Your task to perform on an android device: Search for logitech g903 on newegg, select the first entry, and add it to the cart. Image 0: 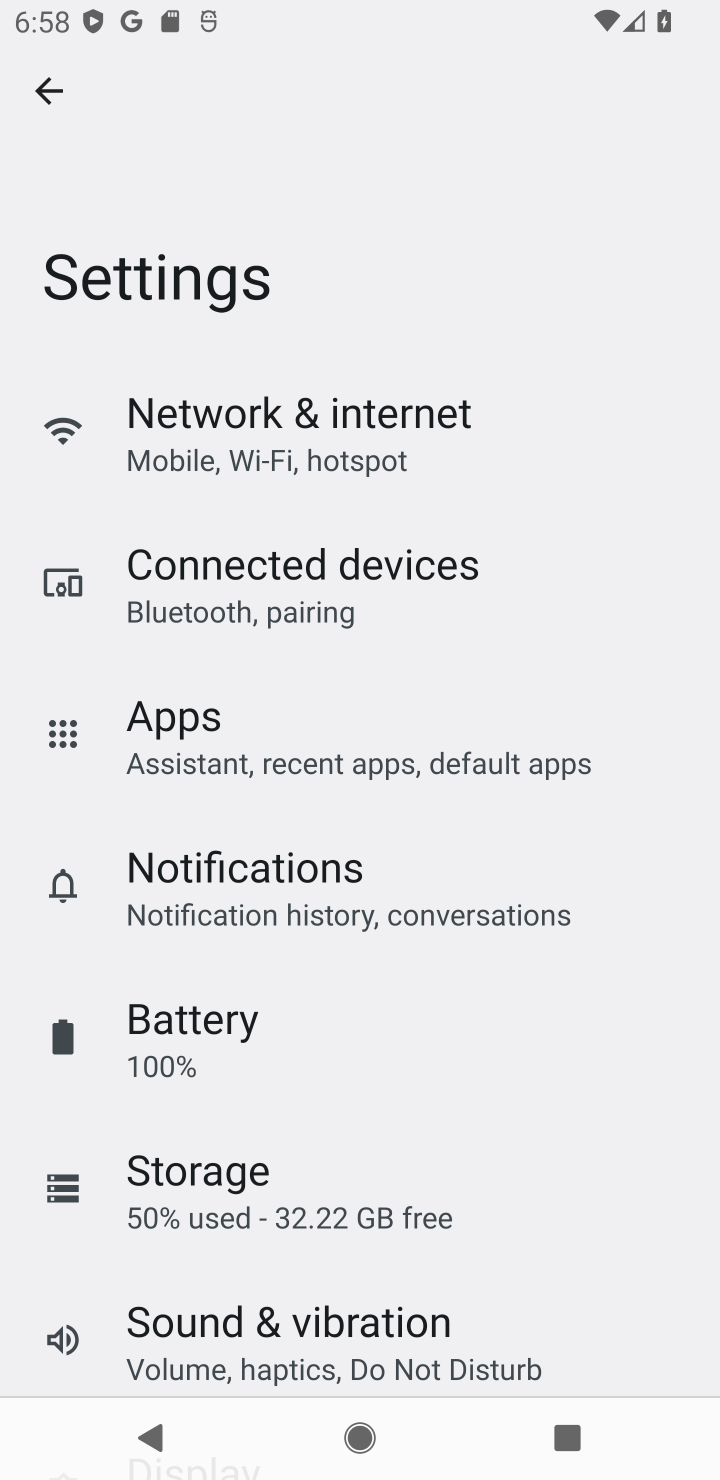
Step 0: press home button
Your task to perform on an android device: Search for logitech g903 on newegg, select the first entry, and add it to the cart. Image 1: 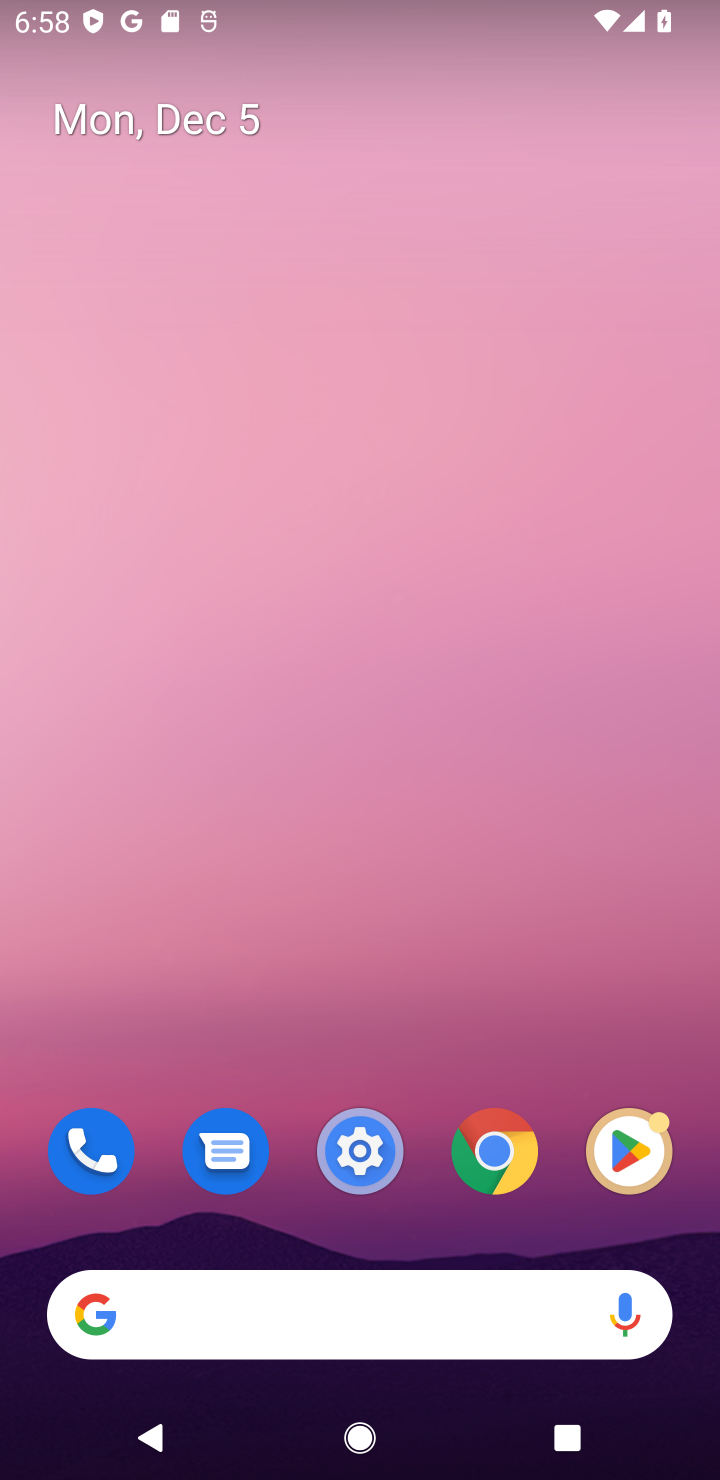
Step 1: click (444, 1308)
Your task to perform on an android device: Search for logitech g903 on newegg, select the first entry, and add it to the cart. Image 2: 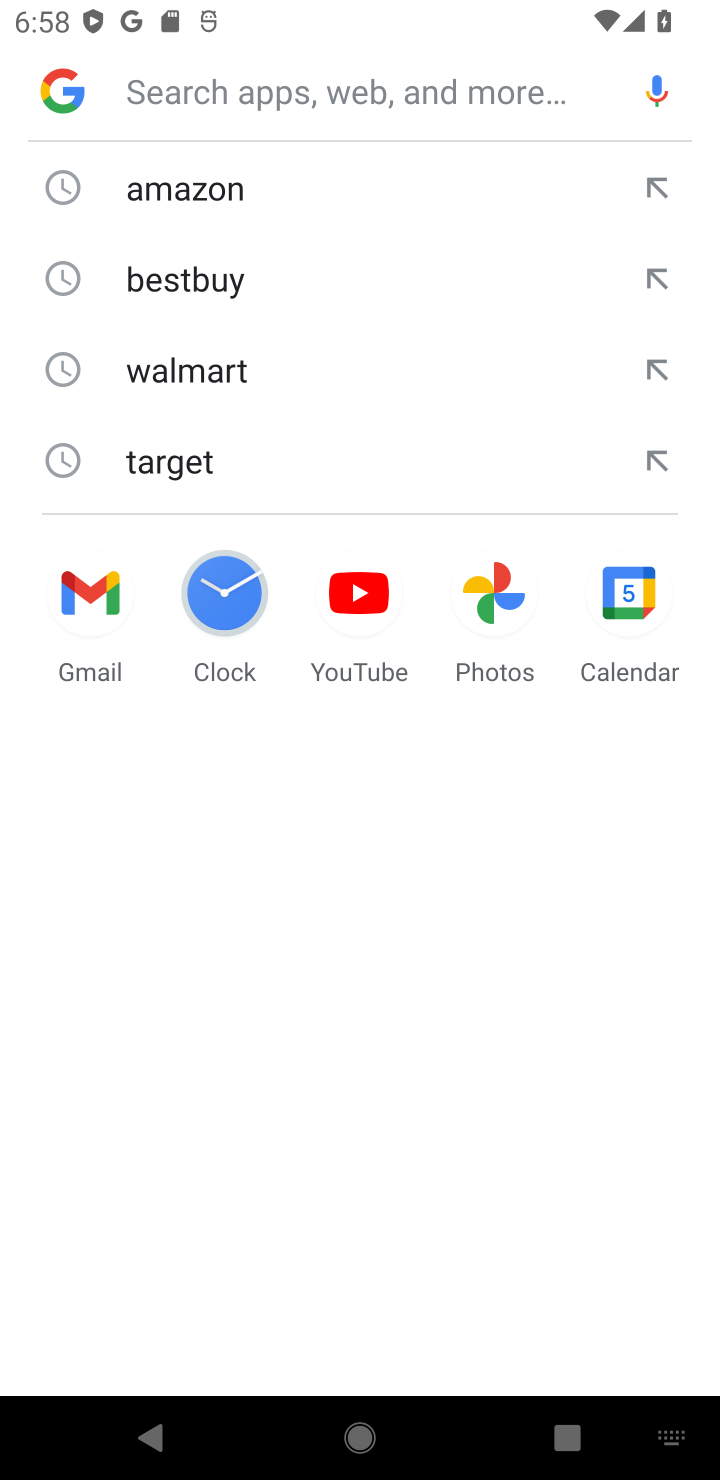
Step 2: type "newegg"
Your task to perform on an android device: Search for logitech g903 on newegg, select the first entry, and add it to the cart. Image 3: 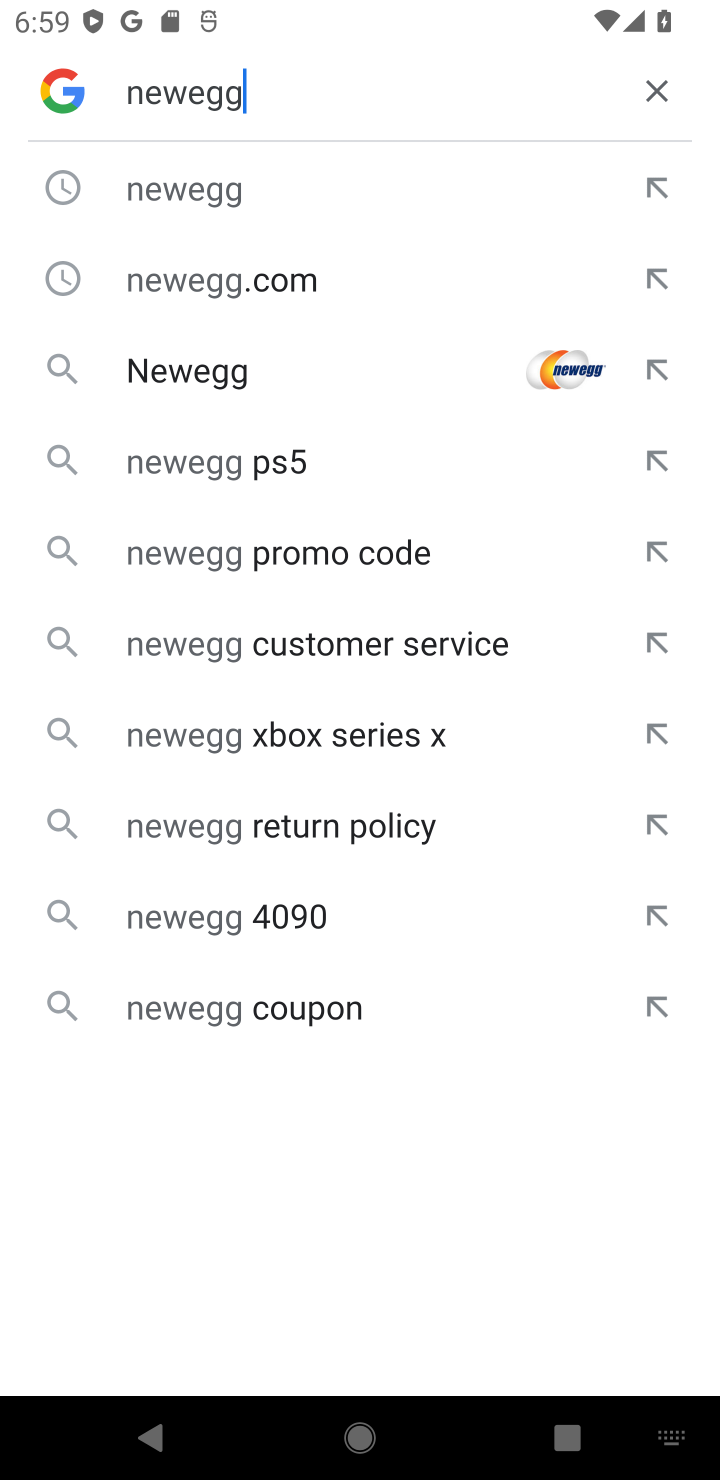
Step 3: click (307, 236)
Your task to perform on an android device: Search for logitech g903 on newegg, select the first entry, and add it to the cart. Image 4: 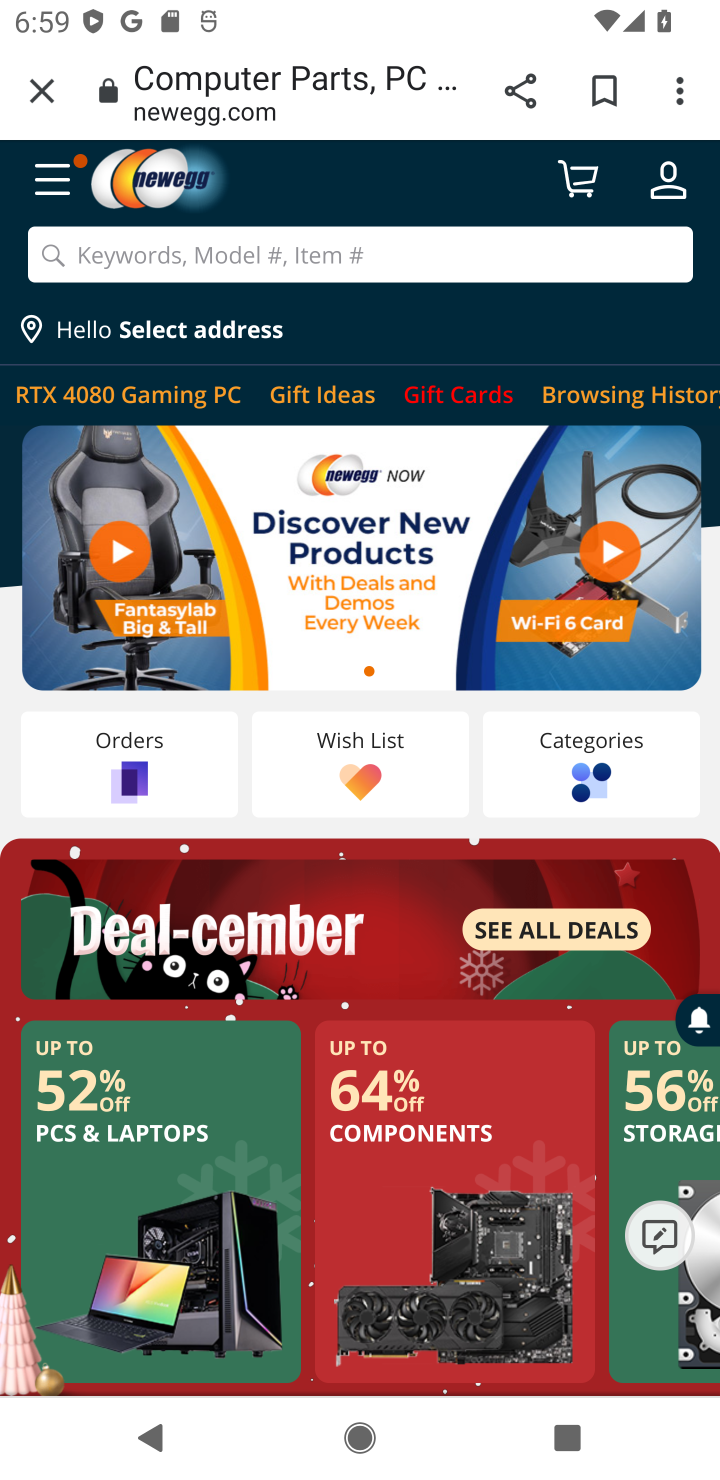
Step 4: click (307, 236)
Your task to perform on an android device: Search for logitech g903 on newegg, select the first entry, and add it to the cart. Image 5: 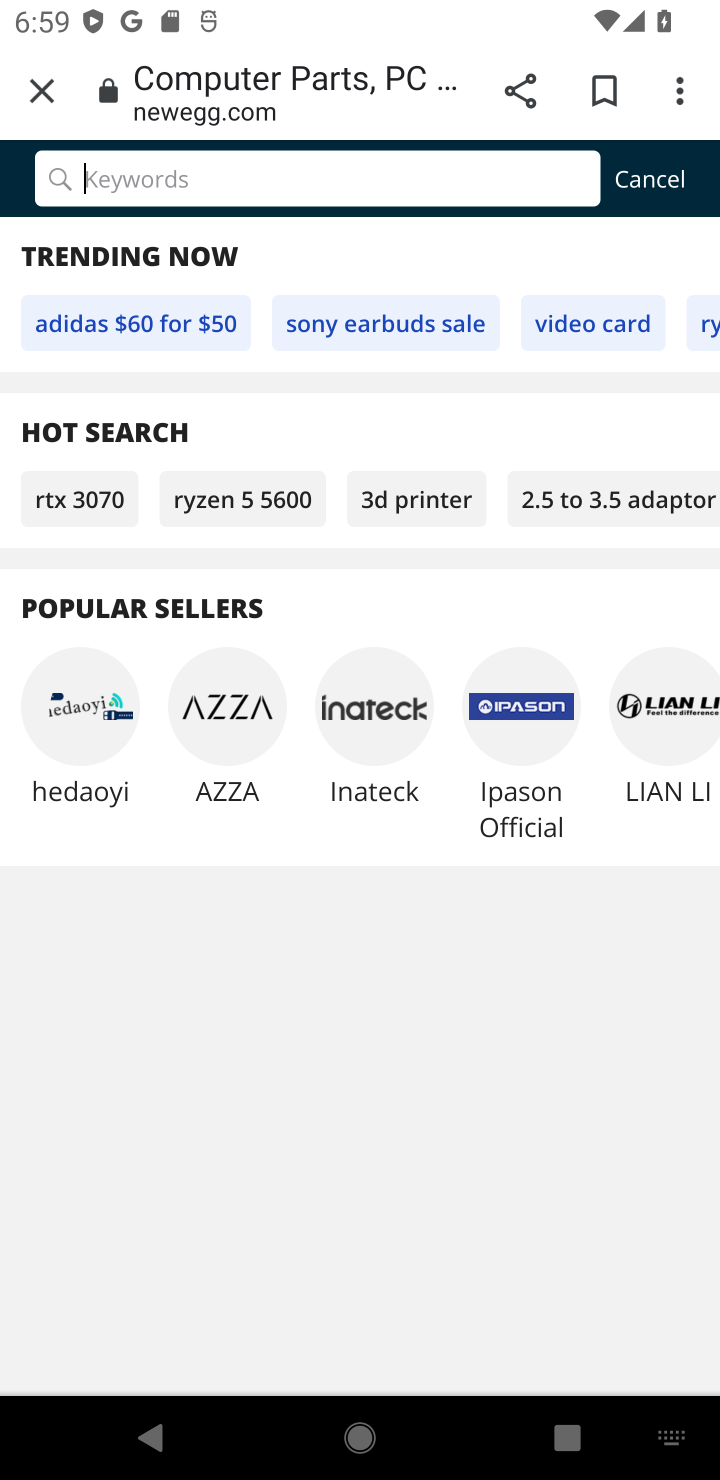
Step 5: type "logitech g903"
Your task to perform on an android device: Search for logitech g903 on newegg, select the first entry, and add it to the cart. Image 6: 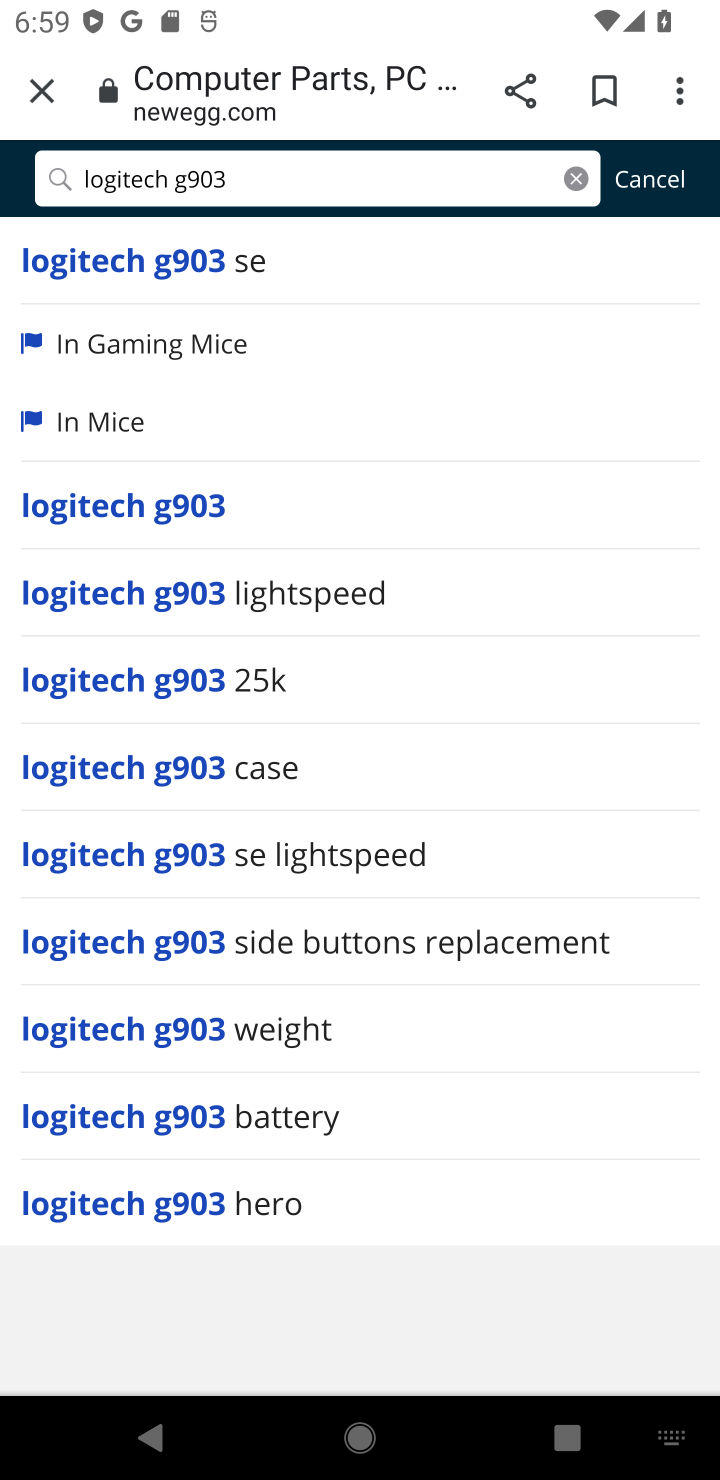
Step 6: click (183, 508)
Your task to perform on an android device: Search for logitech g903 on newegg, select the first entry, and add it to the cart. Image 7: 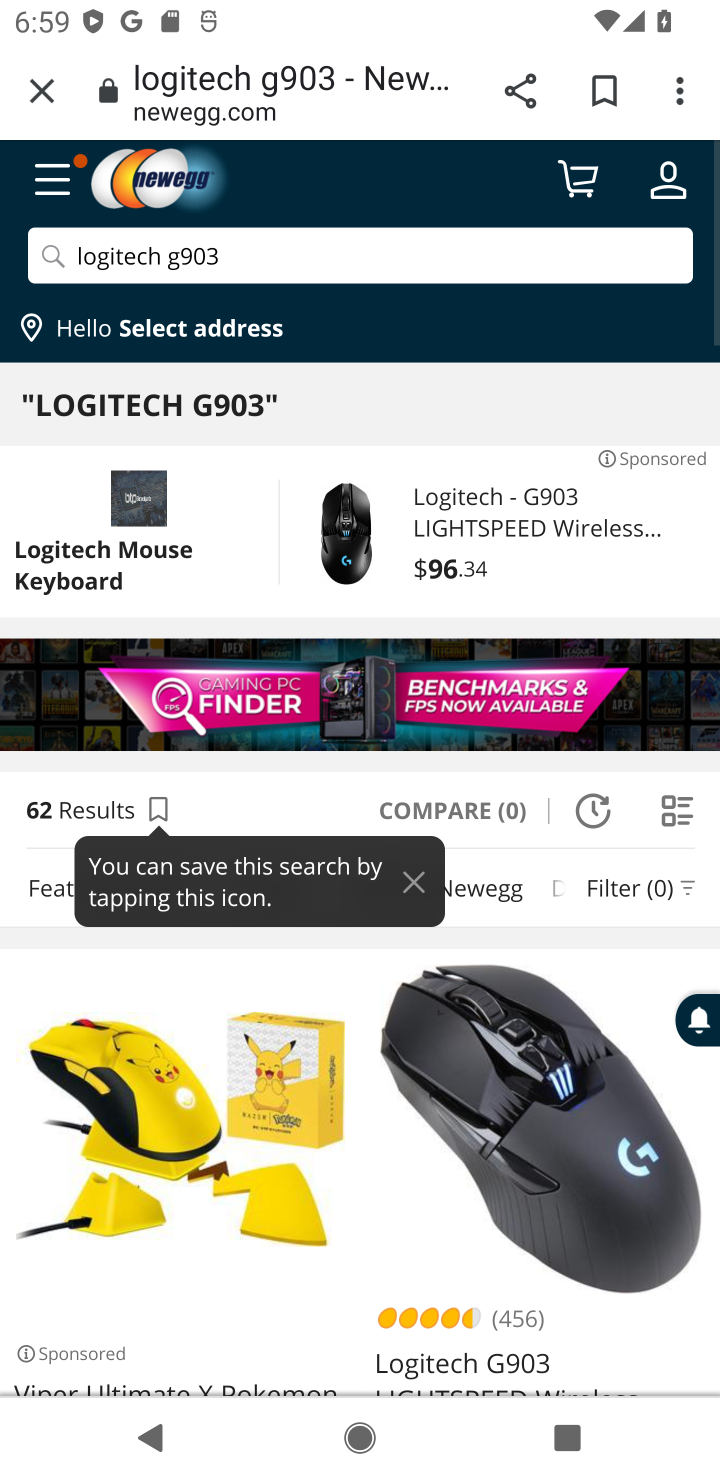
Step 7: click (257, 1203)
Your task to perform on an android device: Search for logitech g903 on newegg, select the first entry, and add it to the cart. Image 8: 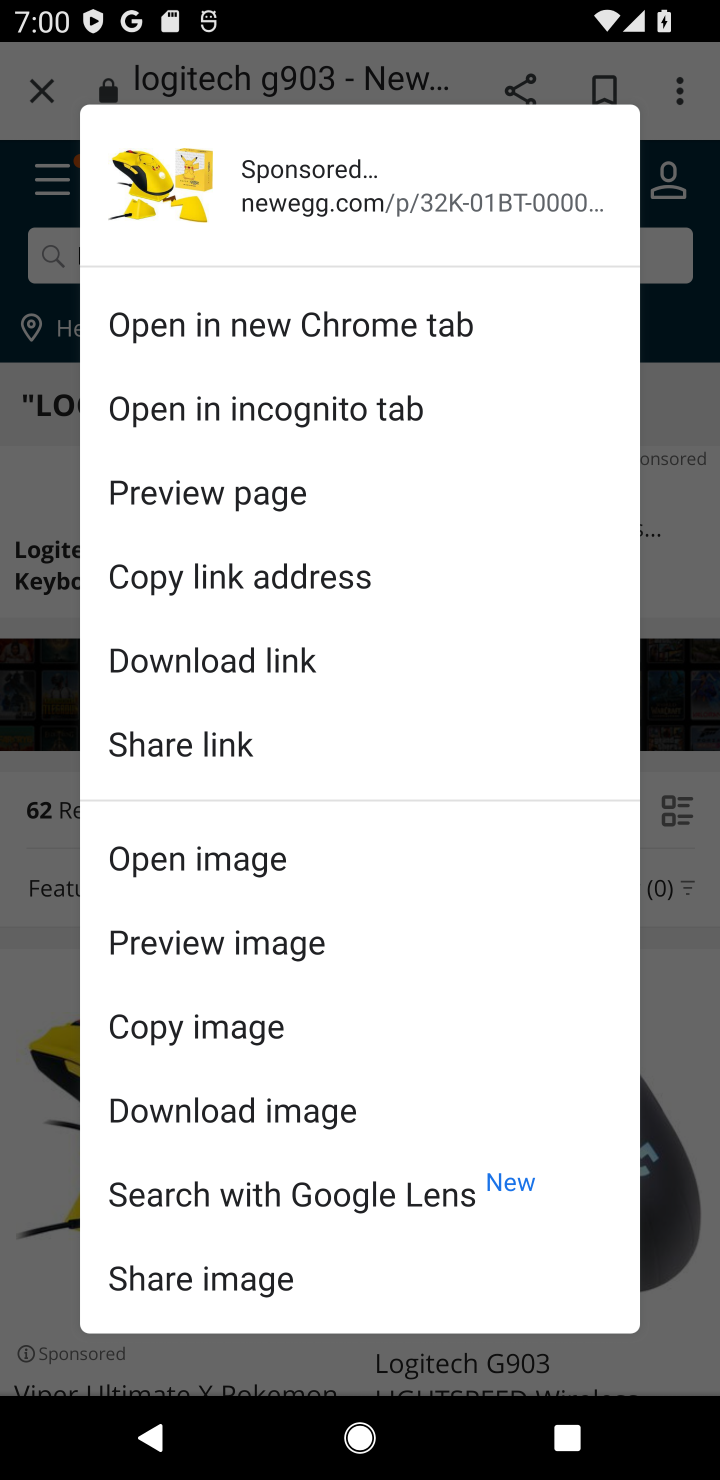
Step 8: click (671, 525)
Your task to perform on an android device: Search for logitech g903 on newegg, select the first entry, and add it to the cart. Image 9: 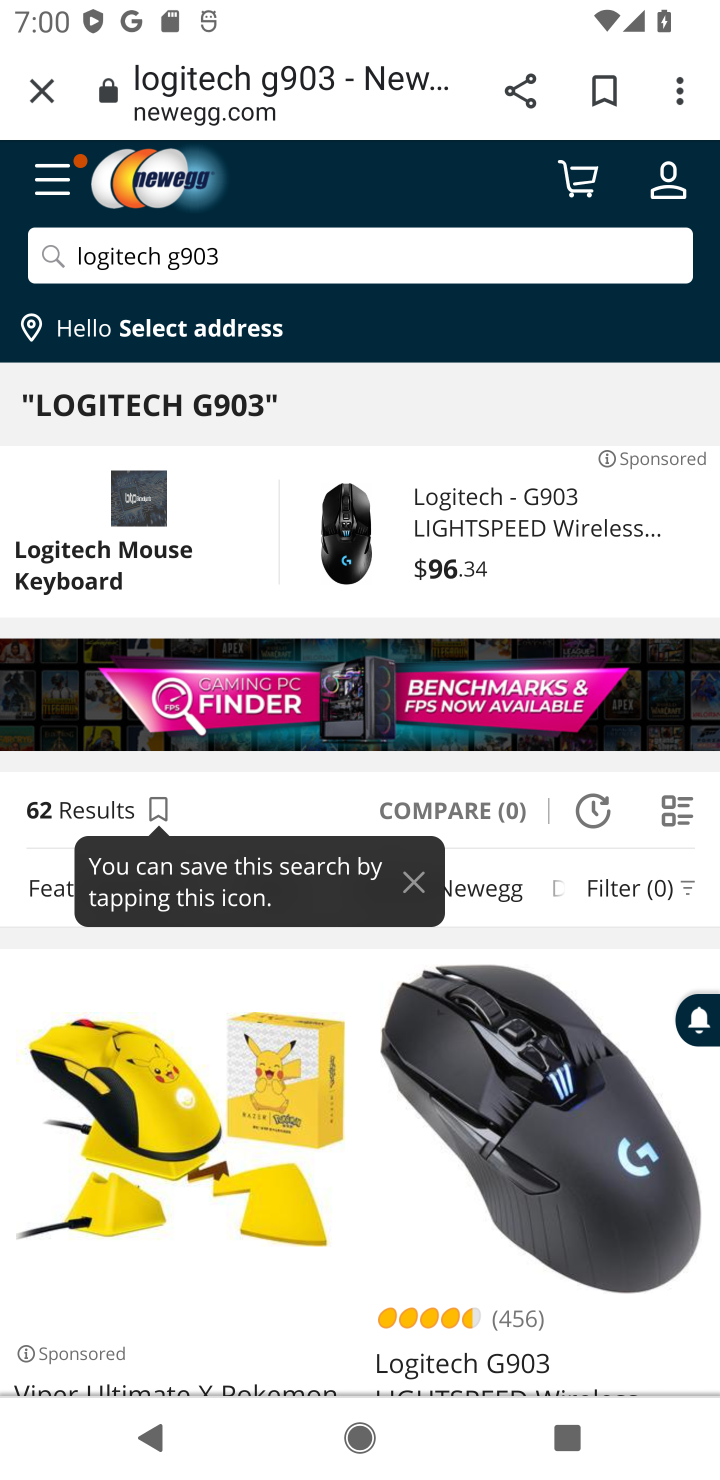
Step 9: click (122, 1177)
Your task to perform on an android device: Search for logitech g903 on newegg, select the first entry, and add it to the cart. Image 10: 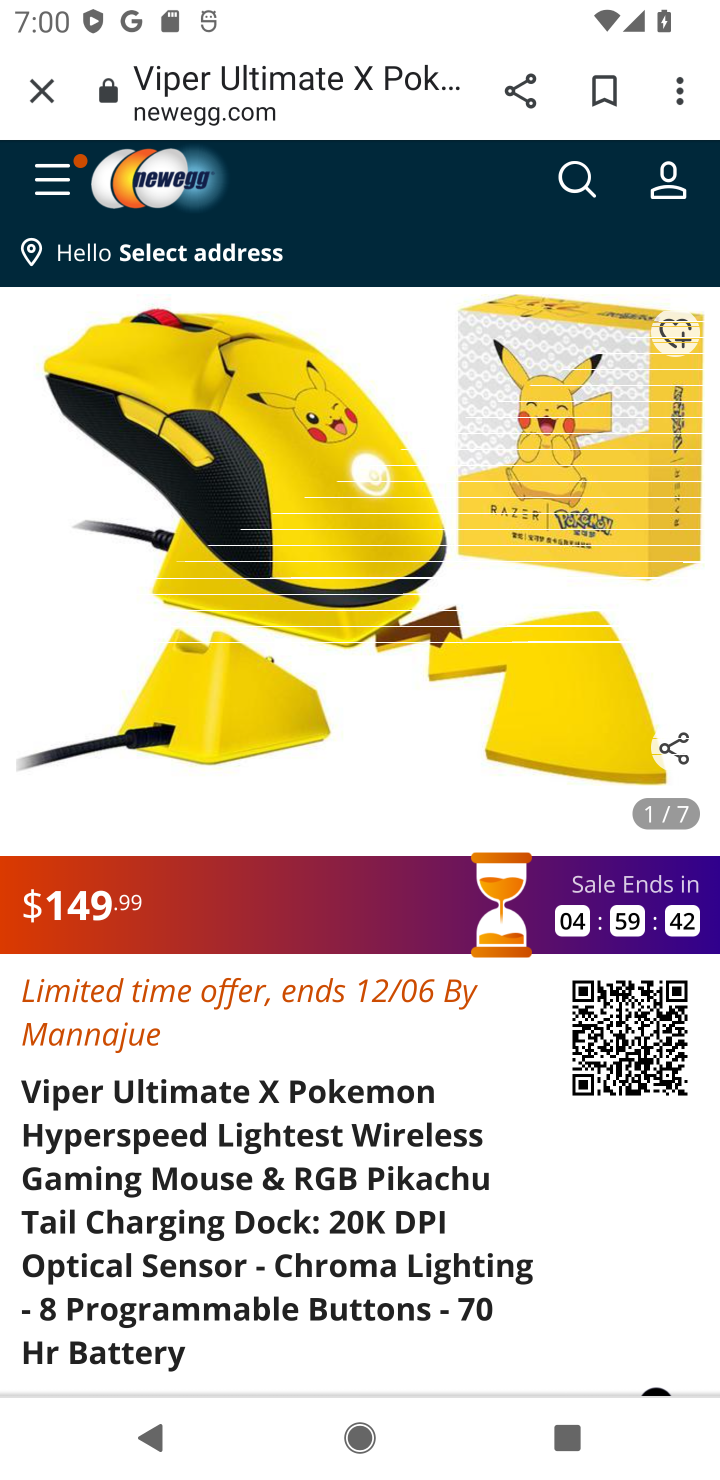
Step 10: click (350, 1340)
Your task to perform on an android device: Search for logitech g903 on newegg, select the first entry, and add it to the cart. Image 11: 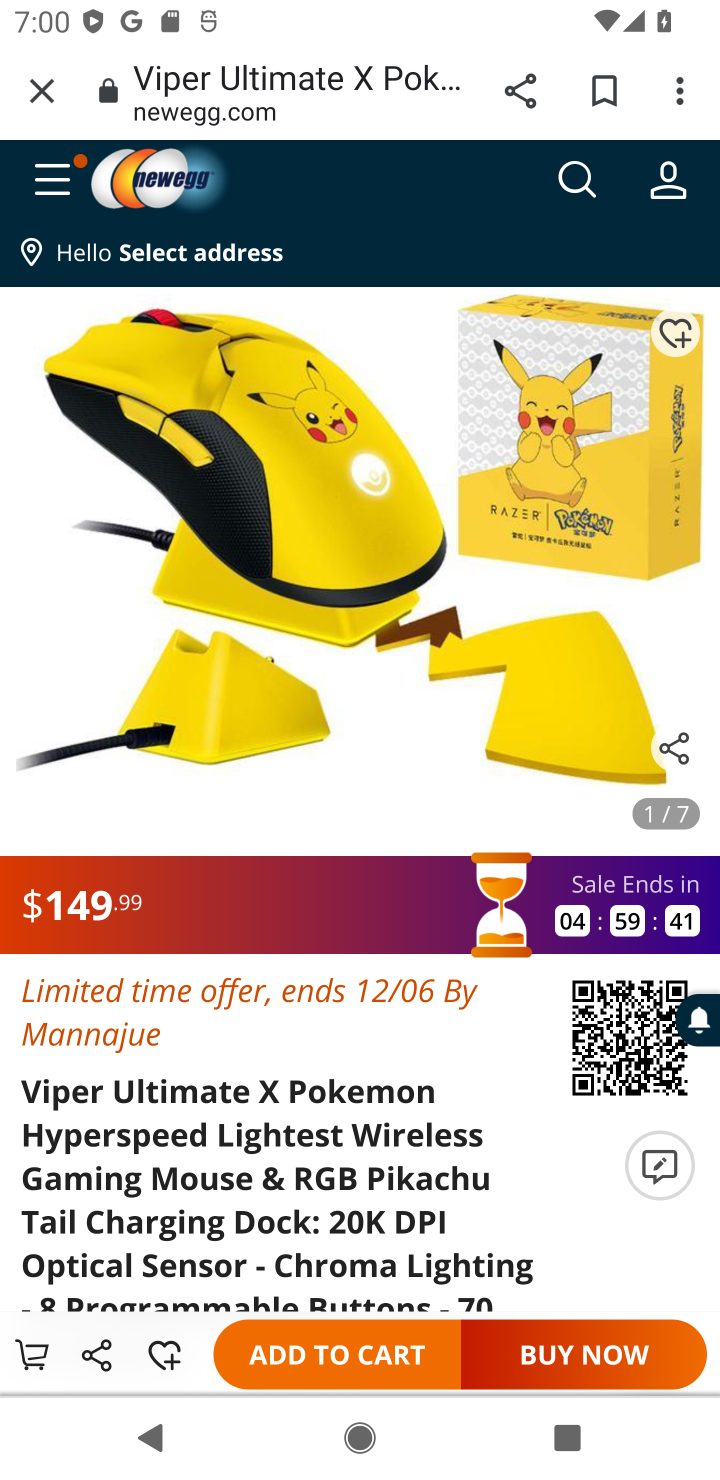
Step 11: task complete